Your task to perform on an android device: turn on the 24-hour format for clock Image 0: 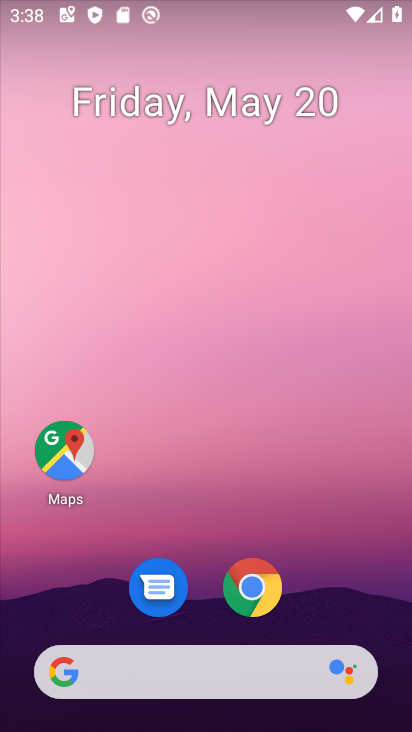
Step 0: drag from (329, 504) to (280, 4)
Your task to perform on an android device: turn on the 24-hour format for clock Image 1: 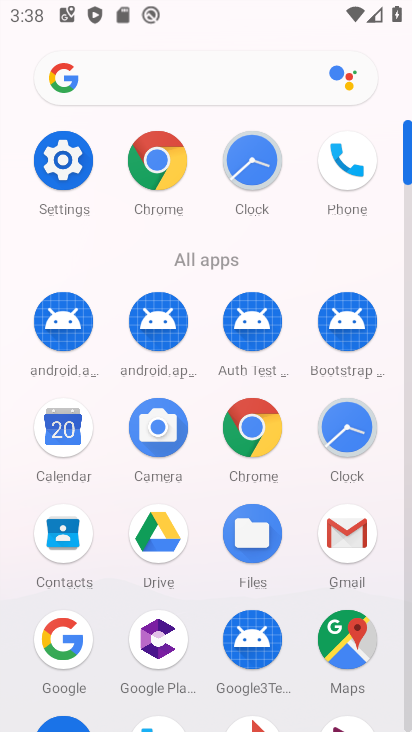
Step 1: drag from (19, 595) to (17, 251)
Your task to perform on an android device: turn on the 24-hour format for clock Image 2: 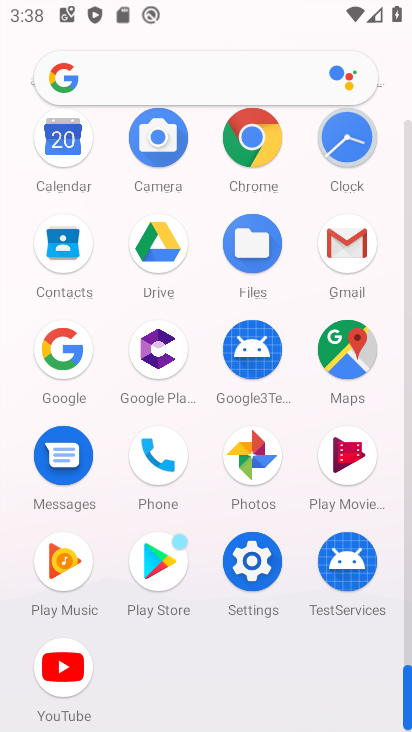
Step 2: click (346, 133)
Your task to perform on an android device: turn on the 24-hour format for clock Image 3: 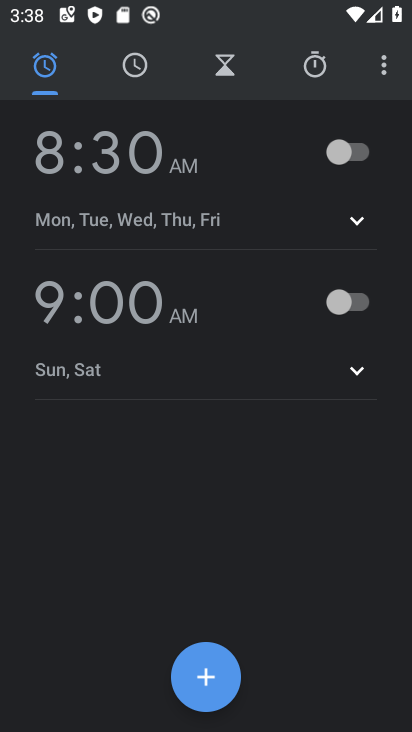
Step 3: drag from (379, 62) to (264, 148)
Your task to perform on an android device: turn on the 24-hour format for clock Image 4: 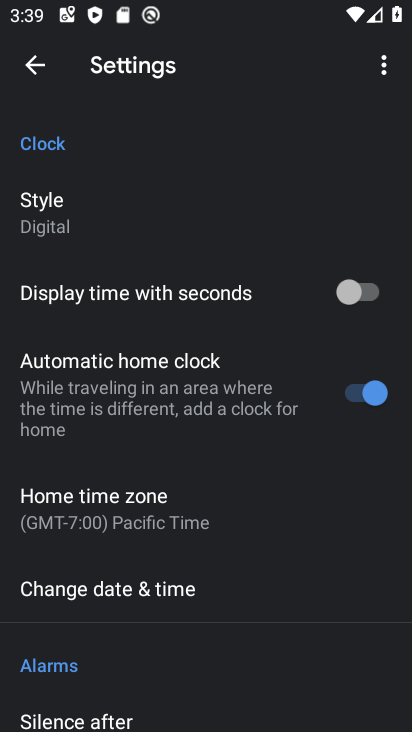
Step 4: click (116, 593)
Your task to perform on an android device: turn on the 24-hour format for clock Image 5: 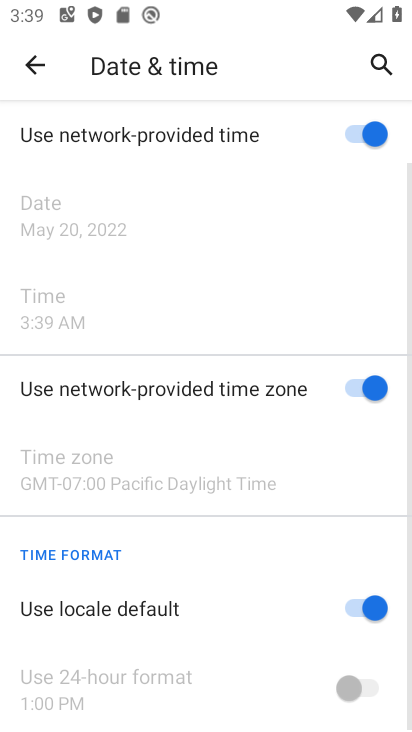
Step 5: drag from (139, 582) to (175, 133)
Your task to perform on an android device: turn on the 24-hour format for clock Image 6: 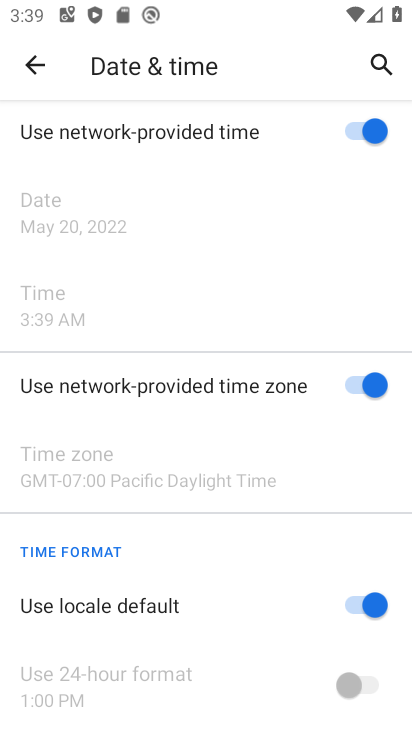
Step 6: click (372, 591)
Your task to perform on an android device: turn on the 24-hour format for clock Image 7: 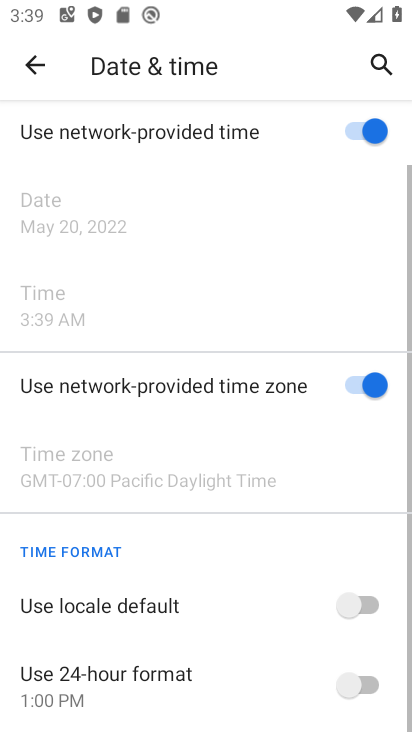
Step 7: click (367, 688)
Your task to perform on an android device: turn on the 24-hour format for clock Image 8: 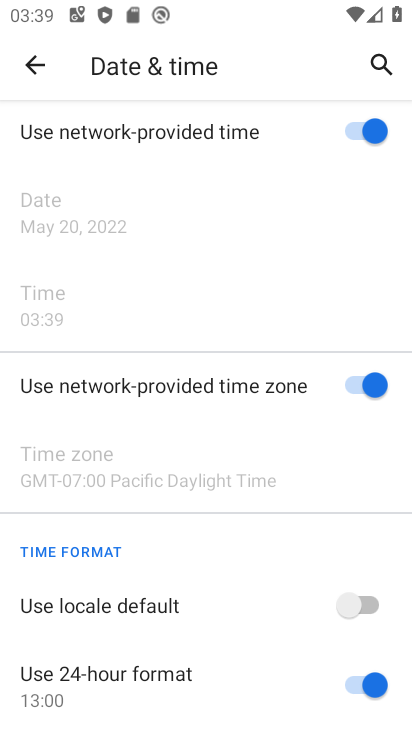
Step 8: task complete